Your task to perform on an android device: Open ESPN.com Image 0: 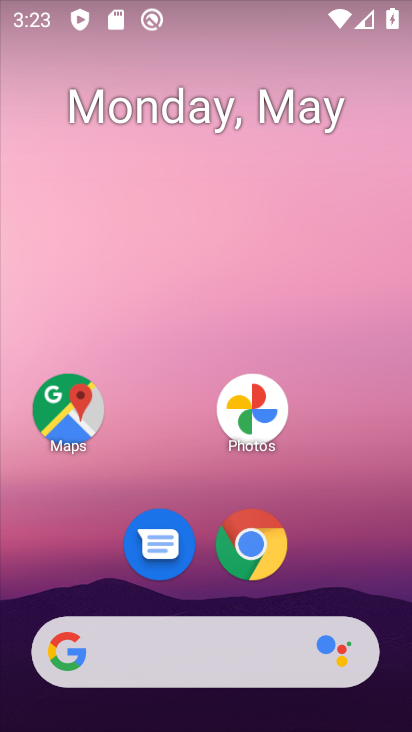
Step 0: drag from (212, 620) to (230, 15)
Your task to perform on an android device: Open ESPN.com Image 1: 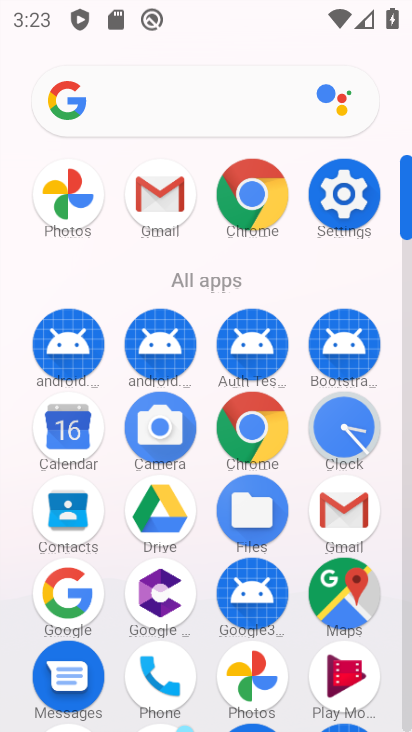
Step 1: click (244, 429)
Your task to perform on an android device: Open ESPN.com Image 2: 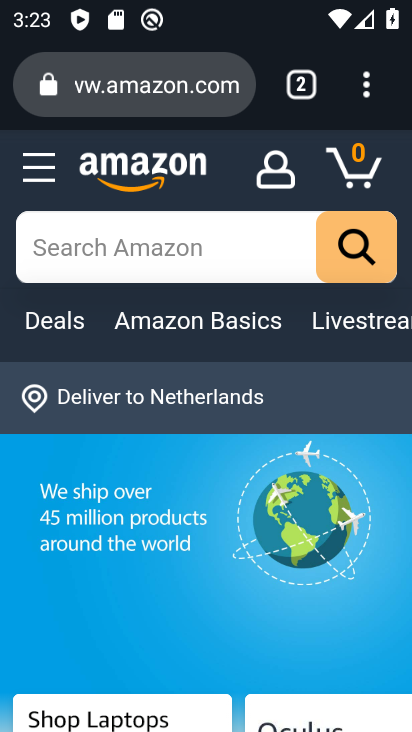
Step 2: click (316, 88)
Your task to perform on an android device: Open ESPN.com Image 3: 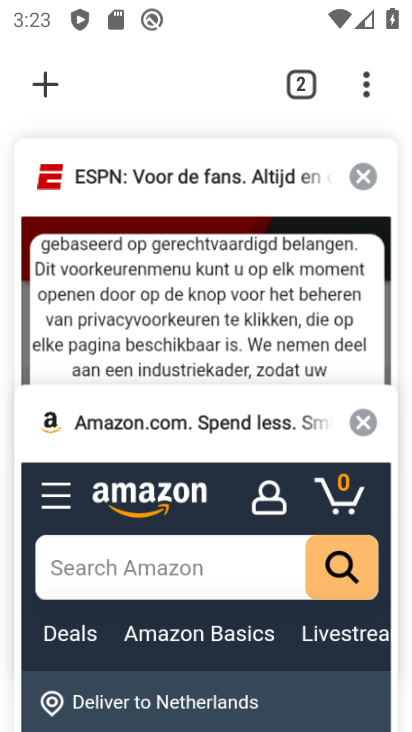
Step 3: click (276, 289)
Your task to perform on an android device: Open ESPN.com Image 4: 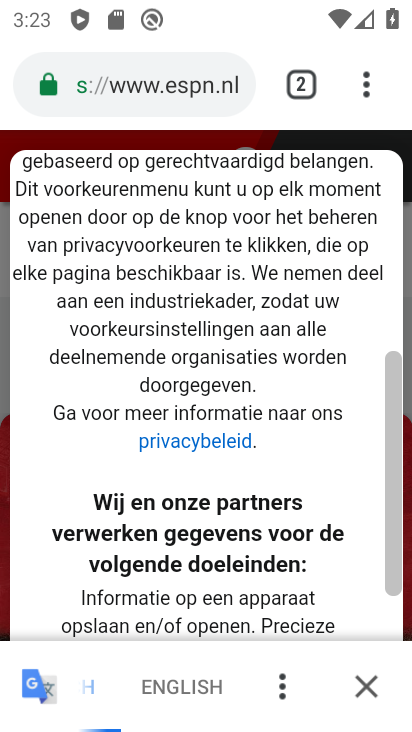
Step 4: task complete